Your task to perform on an android device: Go to Google Image 0: 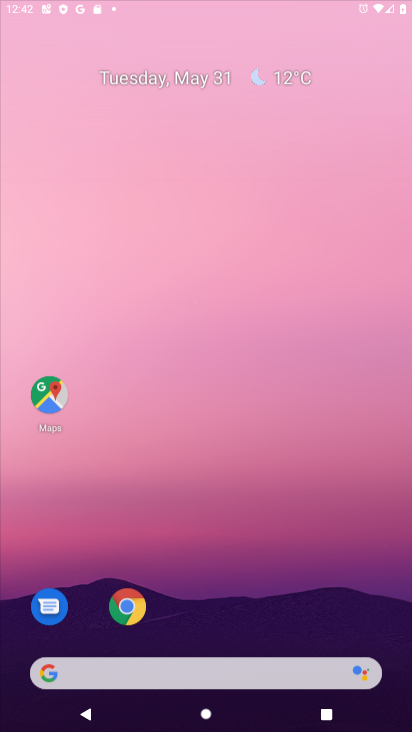
Step 0: drag from (218, 619) to (197, 98)
Your task to perform on an android device: Go to Google Image 1: 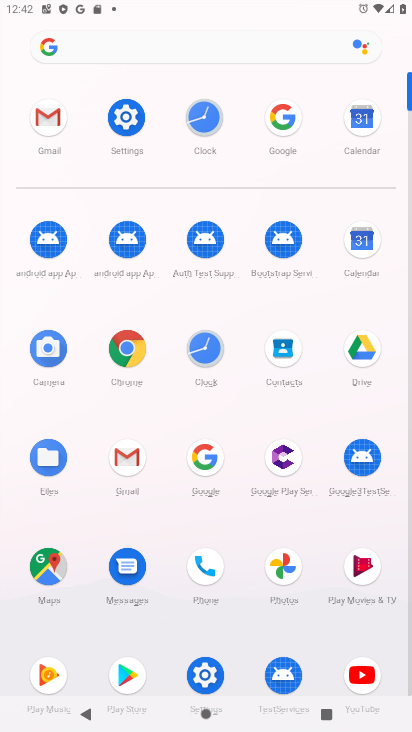
Step 1: click (291, 118)
Your task to perform on an android device: Go to Google Image 2: 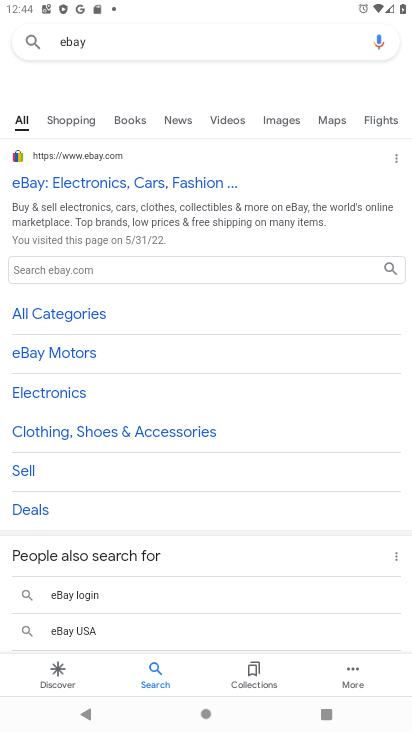
Step 2: task complete